Your task to perform on an android device: change notification settings in the gmail app Image 0: 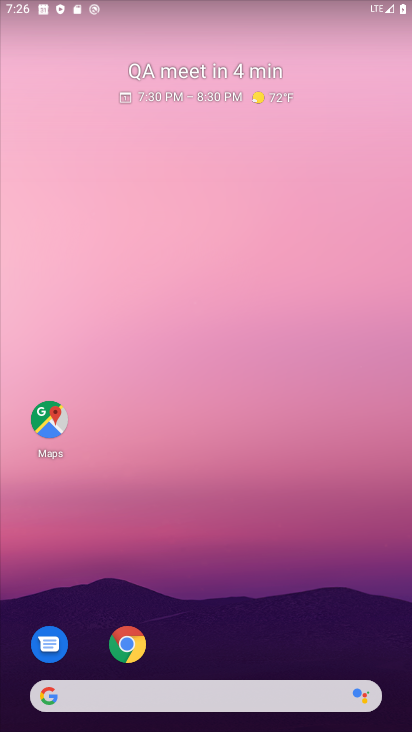
Step 0: click (305, 341)
Your task to perform on an android device: change notification settings in the gmail app Image 1: 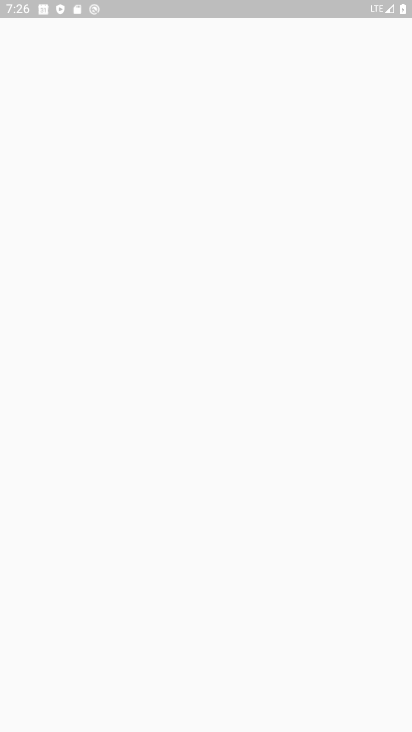
Step 1: press home button
Your task to perform on an android device: change notification settings in the gmail app Image 2: 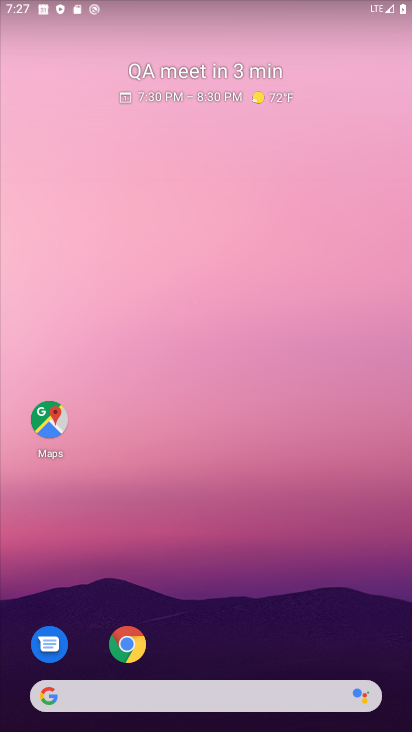
Step 2: drag from (250, 708) to (213, 207)
Your task to perform on an android device: change notification settings in the gmail app Image 3: 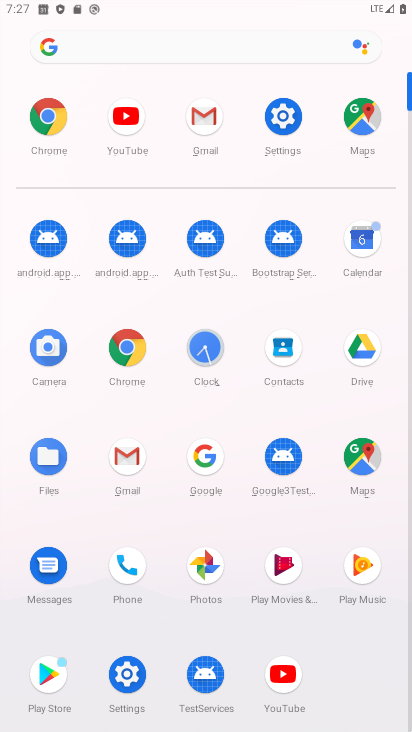
Step 3: click (124, 457)
Your task to perform on an android device: change notification settings in the gmail app Image 4: 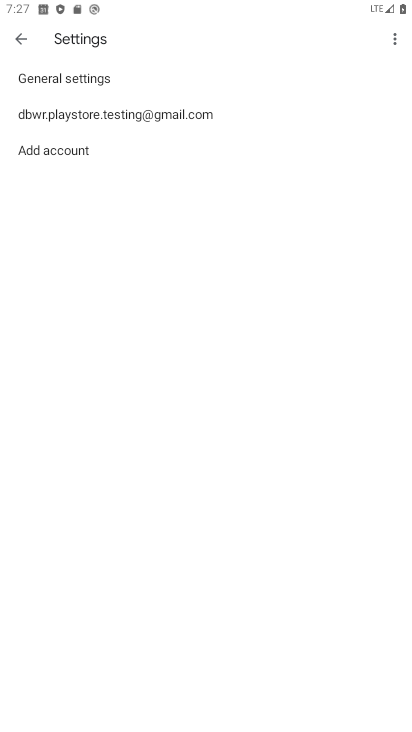
Step 4: click (61, 119)
Your task to perform on an android device: change notification settings in the gmail app Image 5: 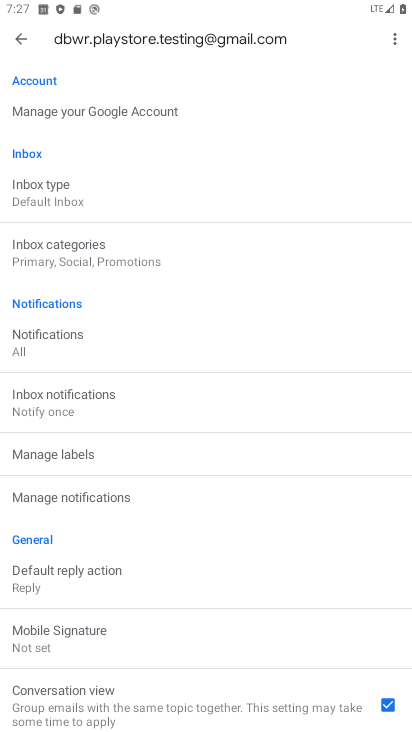
Step 5: click (55, 350)
Your task to perform on an android device: change notification settings in the gmail app Image 6: 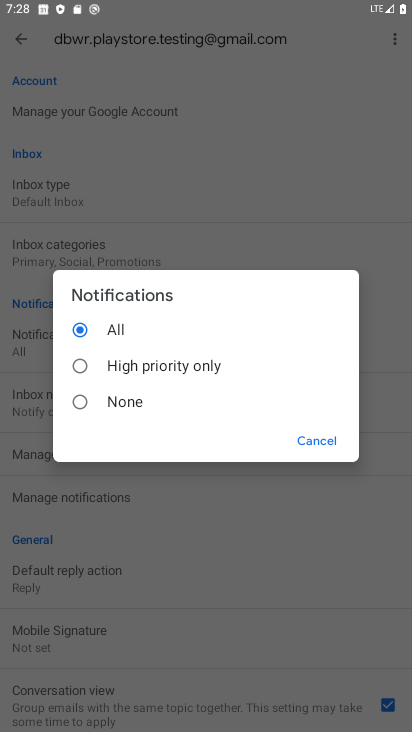
Step 6: click (145, 364)
Your task to perform on an android device: change notification settings in the gmail app Image 7: 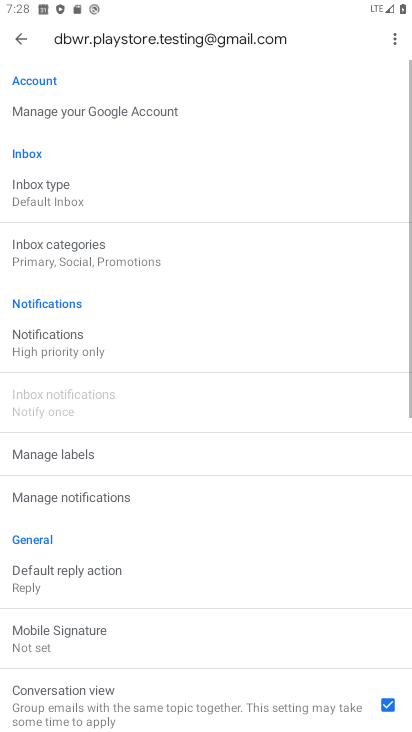
Step 7: task complete